Your task to perform on an android device: Show me recent news Image 0: 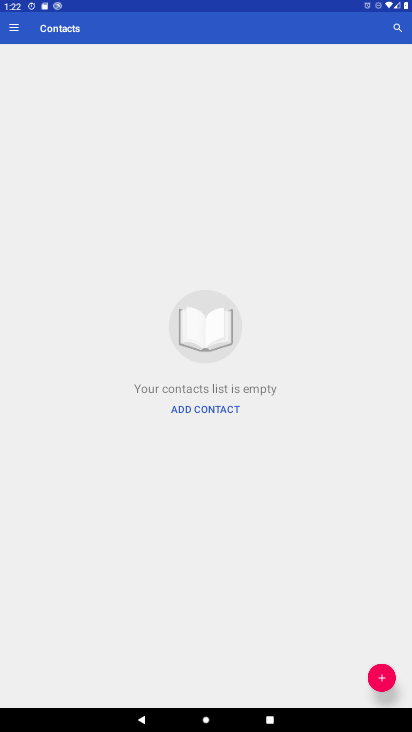
Step 0: press home button
Your task to perform on an android device: Show me recent news Image 1: 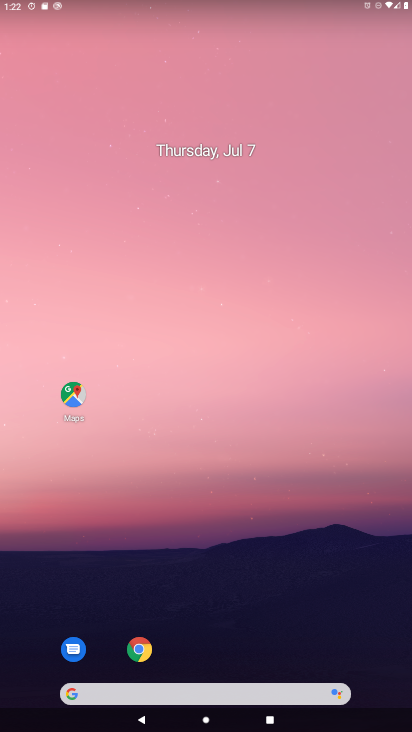
Step 1: click (210, 689)
Your task to perform on an android device: Show me recent news Image 2: 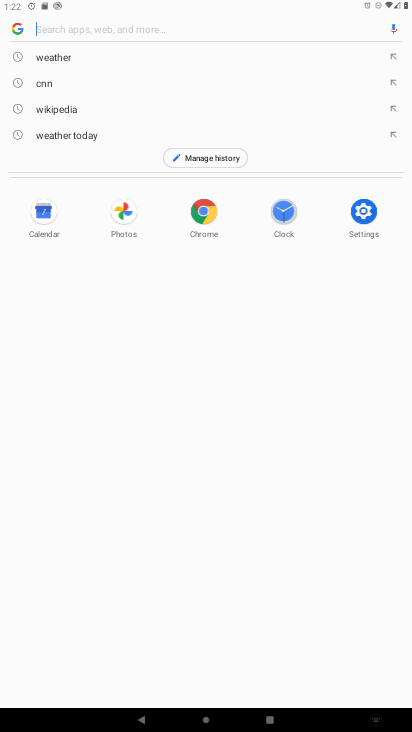
Step 2: click (52, 285)
Your task to perform on an android device: Show me recent news Image 3: 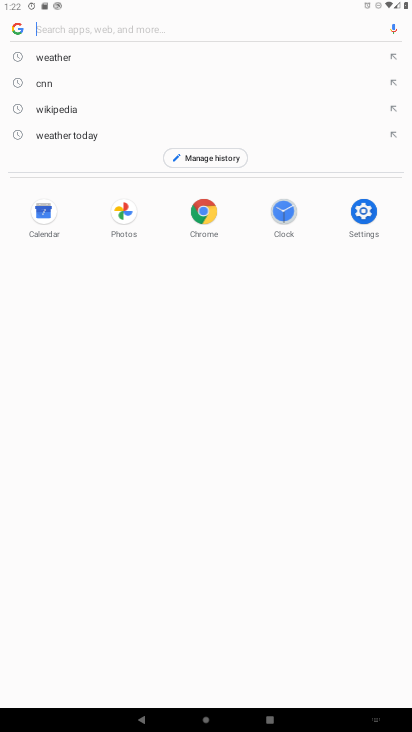
Step 3: type "news"
Your task to perform on an android device: Show me recent news Image 4: 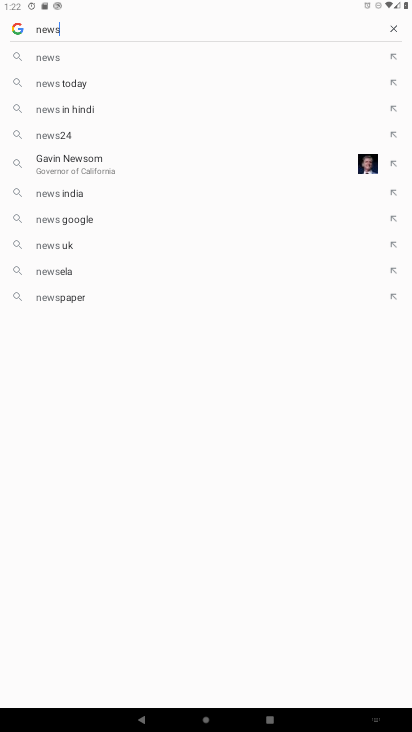
Step 4: click (42, 49)
Your task to perform on an android device: Show me recent news Image 5: 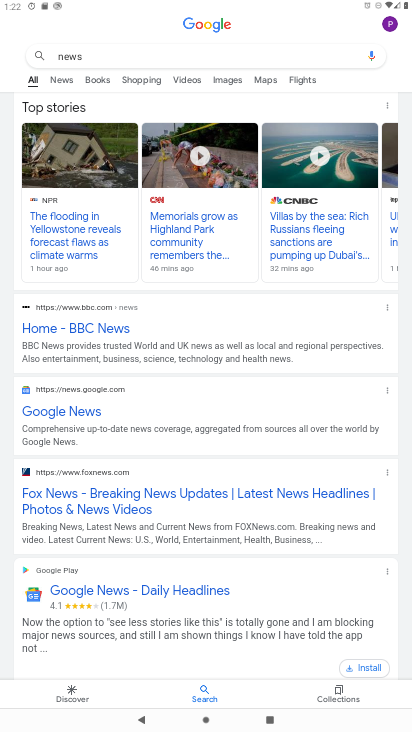
Step 5: click (61, 82)
Your task to perform on an android device: Show me recent news Image 6: 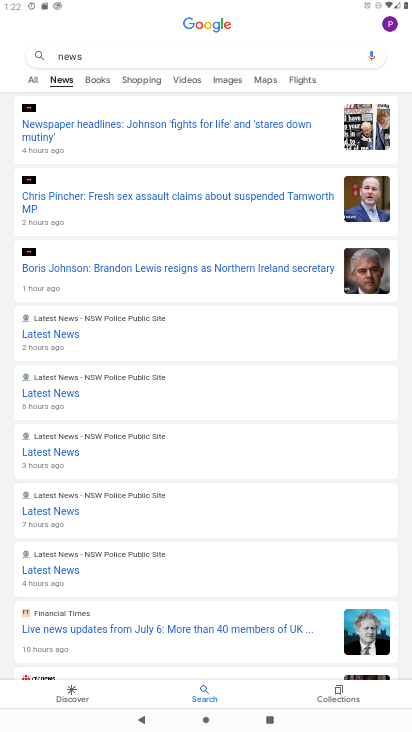
Step 6: task complete